Your task to perform on an android device: Open Chrome and go to settings Image 0: 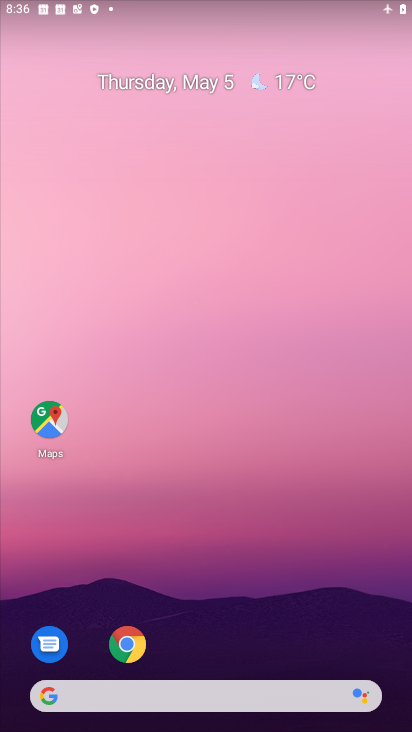
Step 0: drag from (202, 626) to (240, 207)
Your task to perform on an android device: Open Chrome and go to settings Image 1: 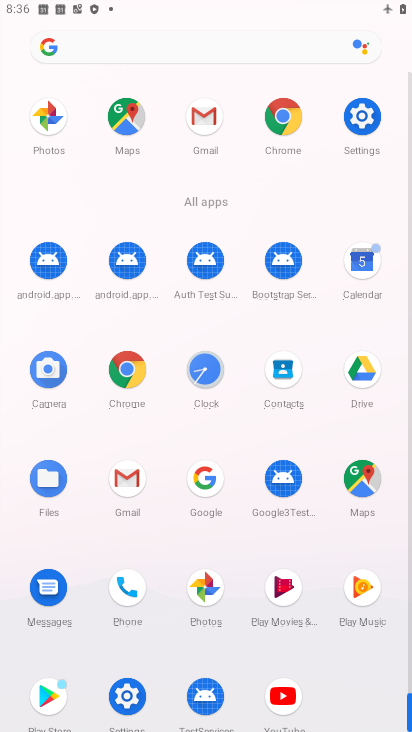
Step 1: click (286, 122)
Your task to perform on an android device: Open Chrome and go to settings Image 2: 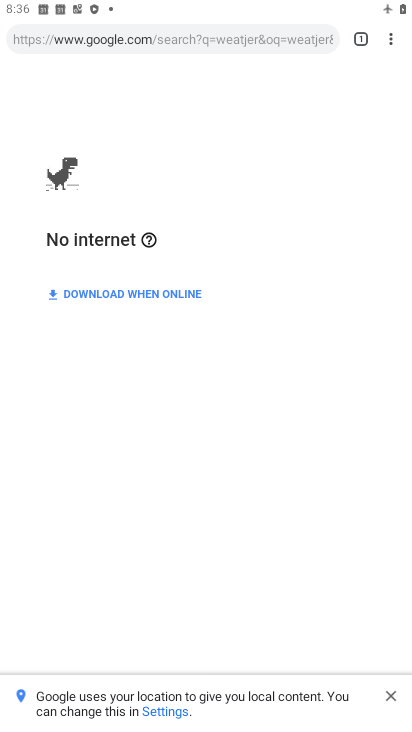
Step 2: click (399, 30)
Your task to perform on an android device: Open Chrome and go to settings Image 3: 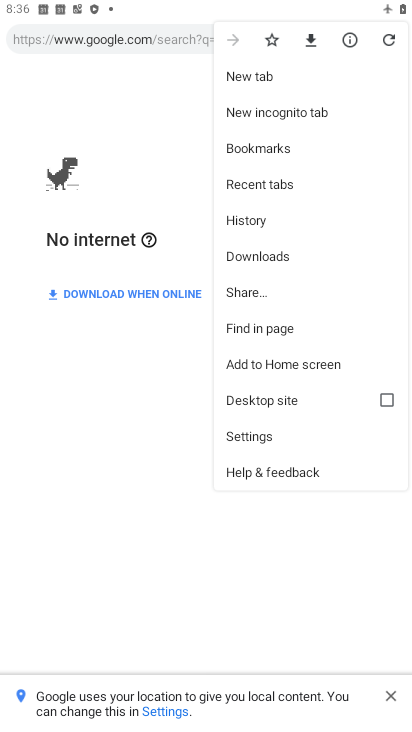
Step 3: click (249, 438)
Your task to perform on an android device: Open Chrome and go to settings Image 4: 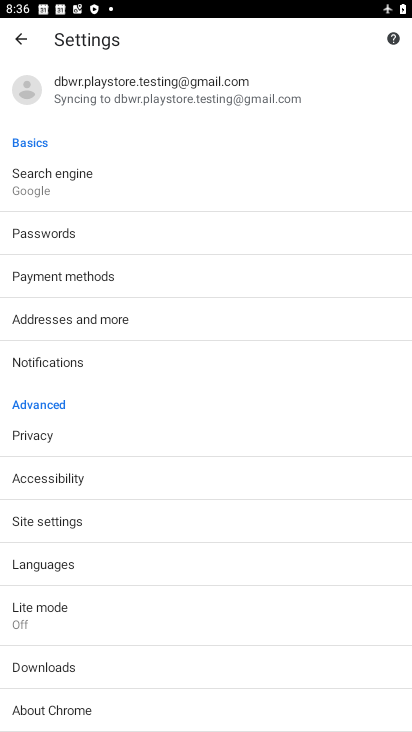
Step 4: click (53, 518)
Your task to perform on an android device: Open Chrome and go to settings Image 5: 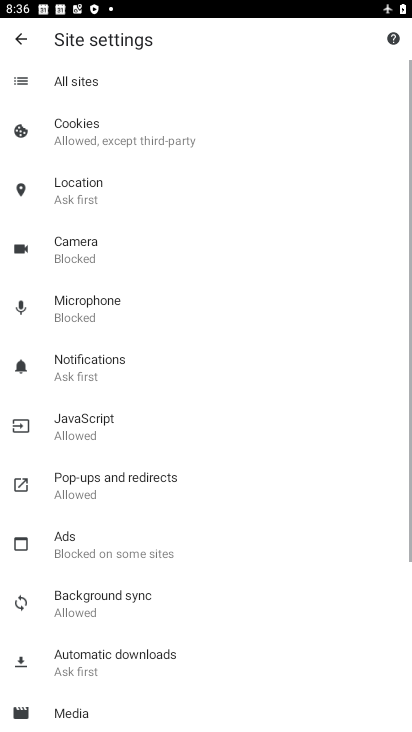
Step 5: task complete